Your task to perform on an android device: open a bookmark in the chrome app Image 0: 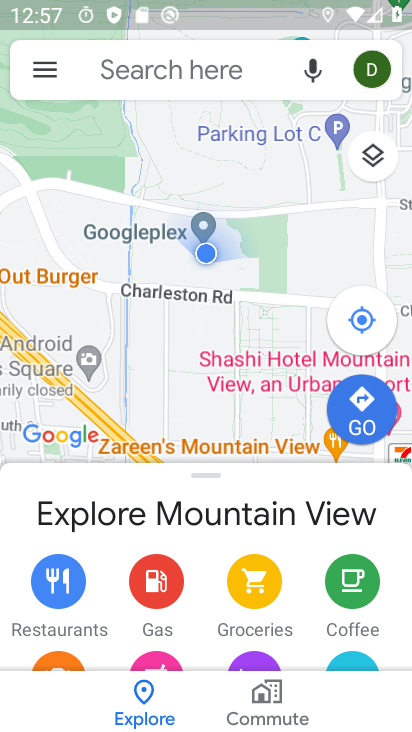
Step 0: press home button
Your task to perform on an android device: open a bookmark in the chrome app Image 1: 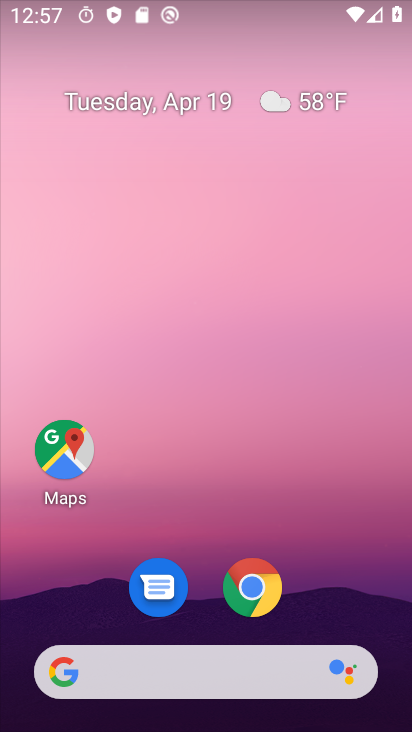
Step 1: click (276, 593)
Your task to perform on an android device: open a bookmark in the chrome app Image 2: 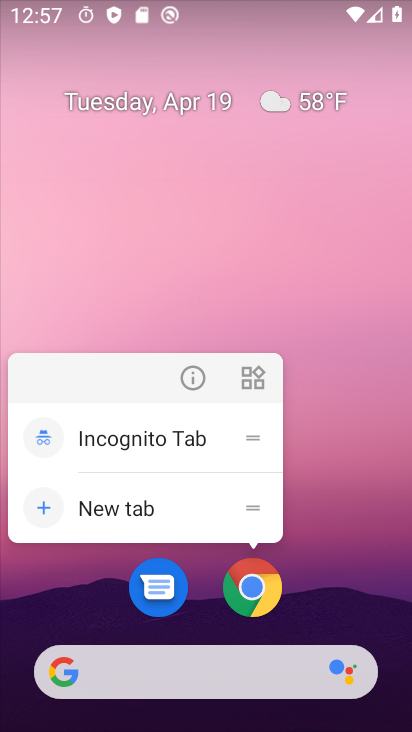
Step 2: click (271, 601)
Your task to perform on an android device: open a bookmark in the chrome app Image 3: 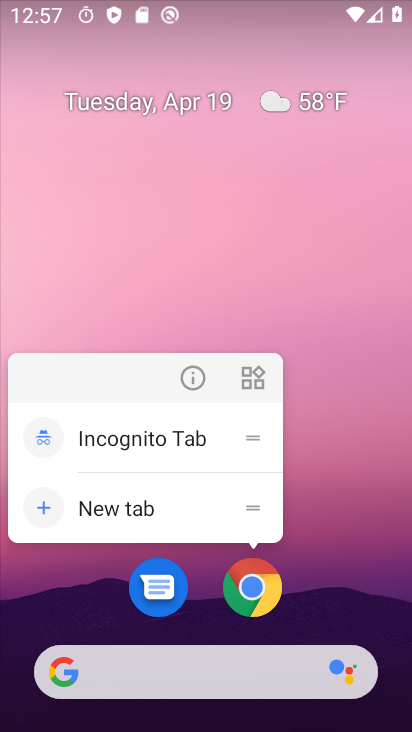
Step 3: click (269, 600)
Your task to perform on an android device: open a bookmark in the chrome app Image 4: 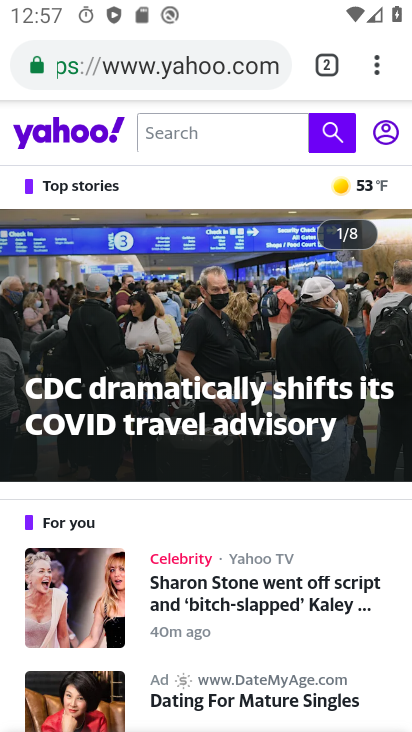
Step 4: click (375, 69)
Your task to perform on an android device: open a bookmark in the chrome app Image 5: 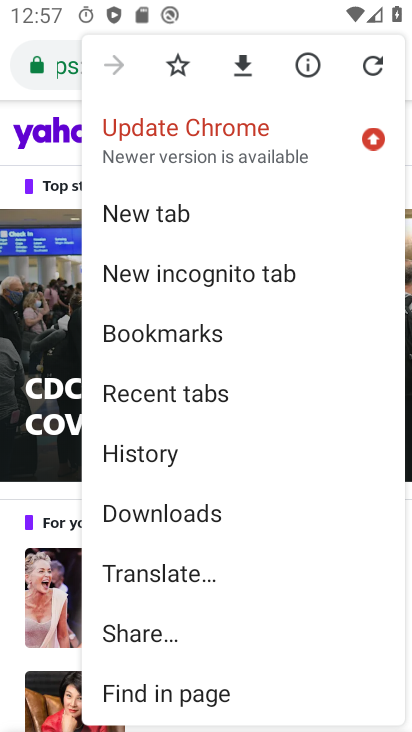
Step 5: click (175, 338)
Your task to perform on an android device: open a bookmark in the chrome app Image 6: 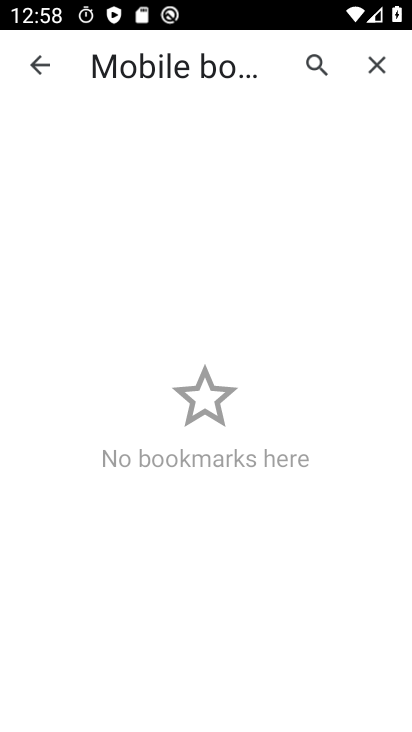
Step 6: task complete